Your task to perform on an android device: Do I have any events this weekend? Image 0: 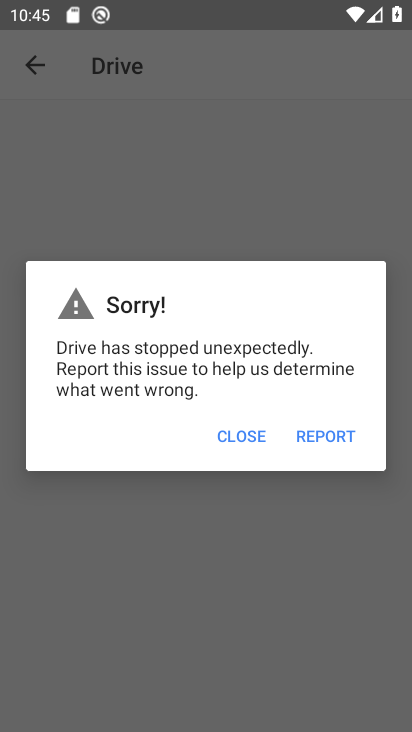
Step 0: press home button
Your task to perform on an android device: Do I have any events this weekend? Image 1: 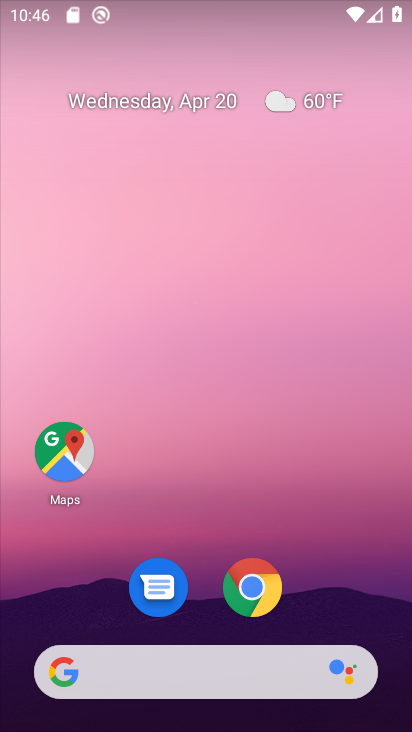
Step 1: drag from (207, 627) to (217, 94)
Your task to perform on an android device: Do I have any events this weekend? Image 2: 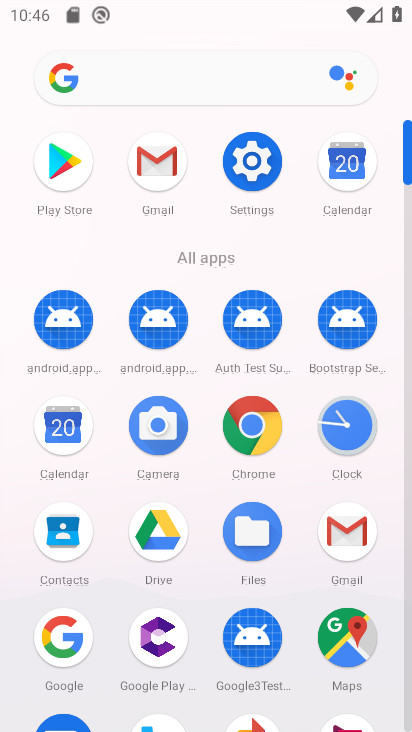
Step 2: click (62, 418)
Your task to perform on an android device: Do I have any events this weekend? Image 3: 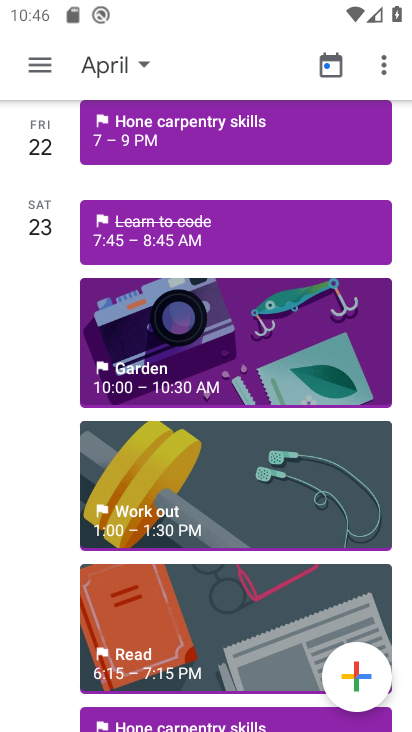
Step 3: click (42, 63)
Your task to perform on an android device: Do I have any events this weekend? Image 4: 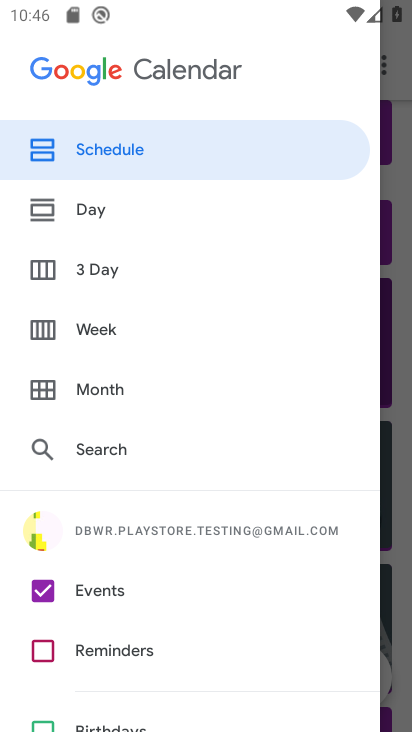
Step 4: click (60, 326)
Your task to perform on an android device: Do I have any events this weekend? Image 5: 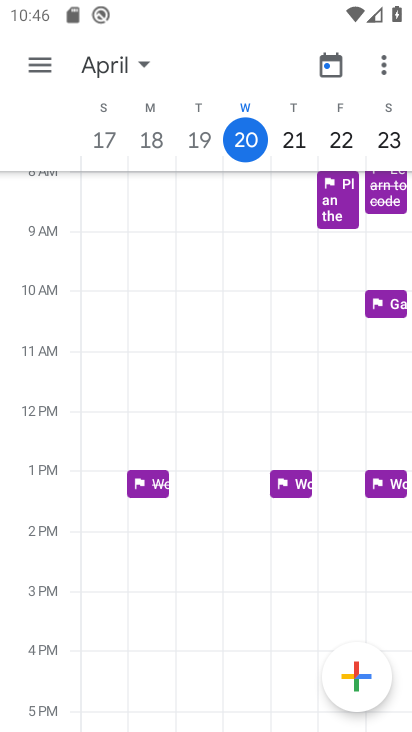
Step 5: click (247, 139)
Your task to perform on an android device: Do I have any events this weekend? Image 6: 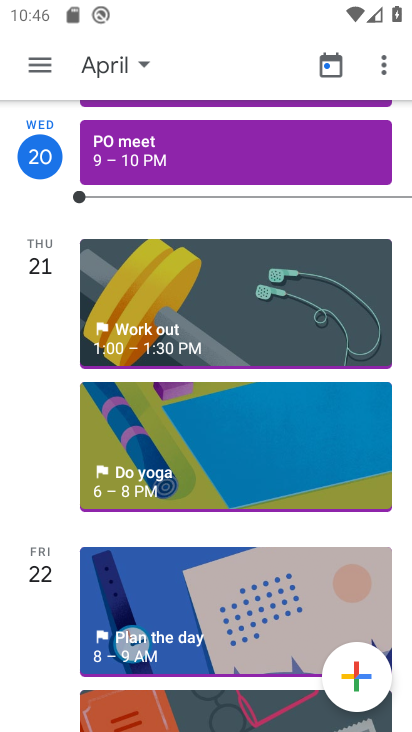
Step 6: task complete